Your task to perform on an android device: star an email in the gmail app Image 0: 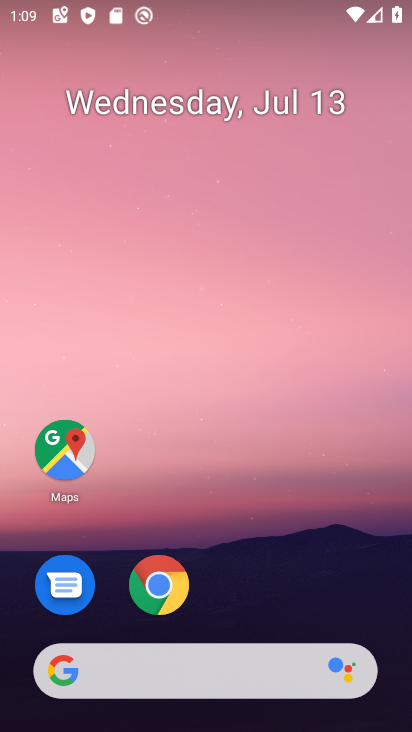
Step 0: drag from (146, 672) to (290, 229)
Your task to perform on an android device: star an email in the gmail app Image 1: 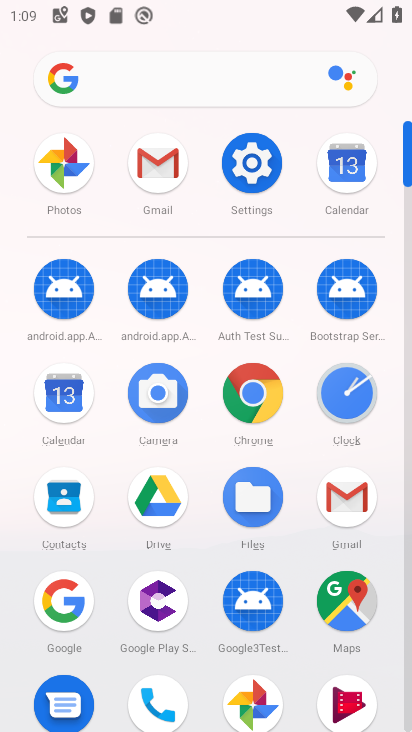
Step 1: click (174, 163)
Your task to perform on an android device: star an email in the gmail app Image 2: 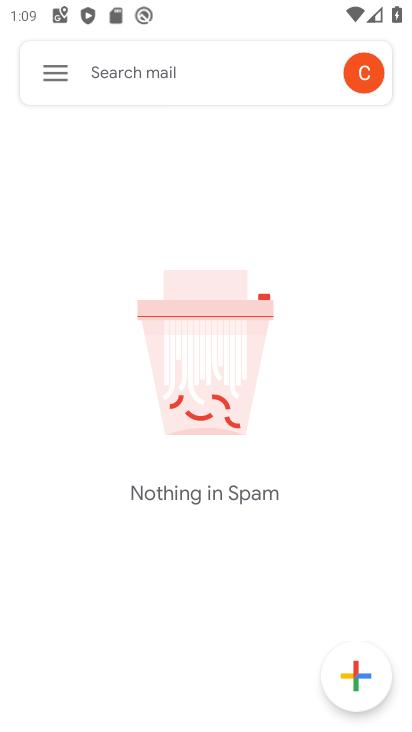
Step 2: click (62, 81)
Your task to perform on an android device: star an email in the gmail app Image 3: 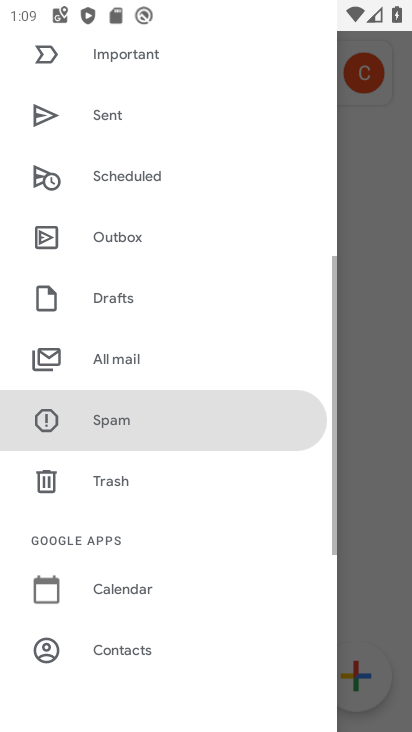
Step 3: click (130, 364)
Your task to perform on an android device: star an email in the gmail app Image 4: 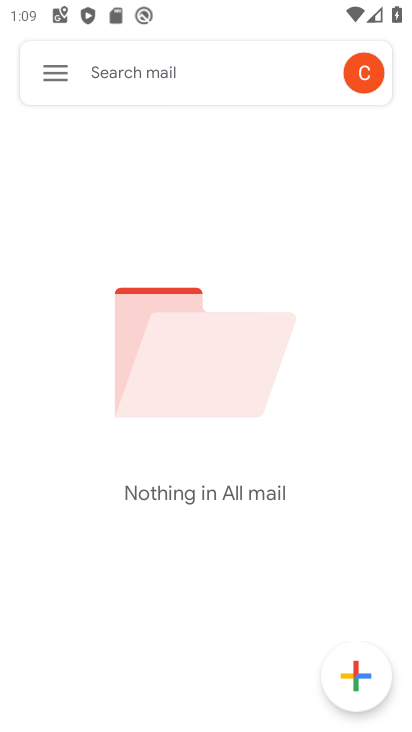
Step 4: task complete